Your task to perform on an android device: turn pop-ups off in chrome Image 0: 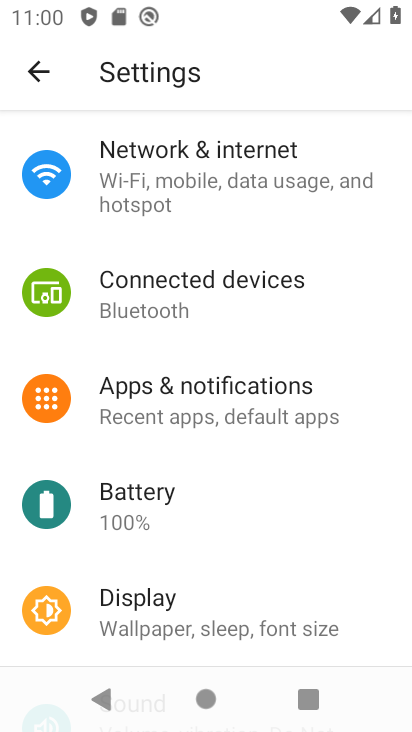
Step 0: press home button
Your task to perform on an android device: turn pop-ups off in chrome Image 1: 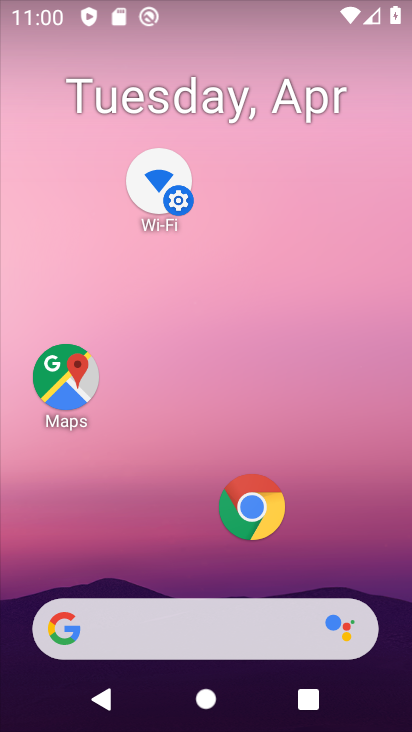
Step 1: click (250, 493)
Your task to perform on an android device: turn pop-ups off in chrome Image 2: 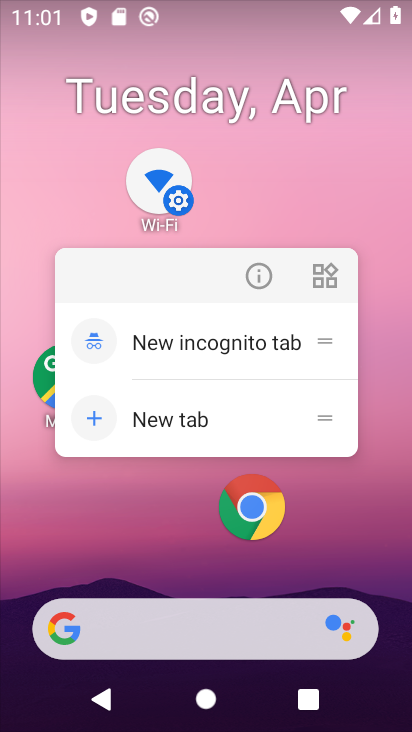
Step 2: click (250, 493)
Your task to perform on an android device: turn pop-ups off in chrome Image 3: 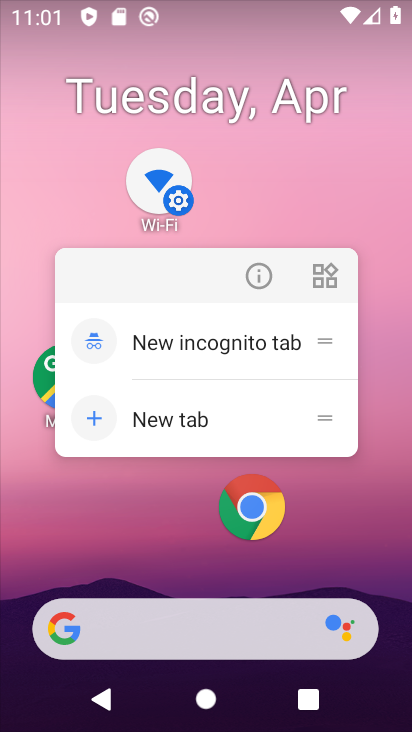
Step 3: click (250, 492)
Your task to perform on an android device: turn pop-ups off in chrome Image 4: 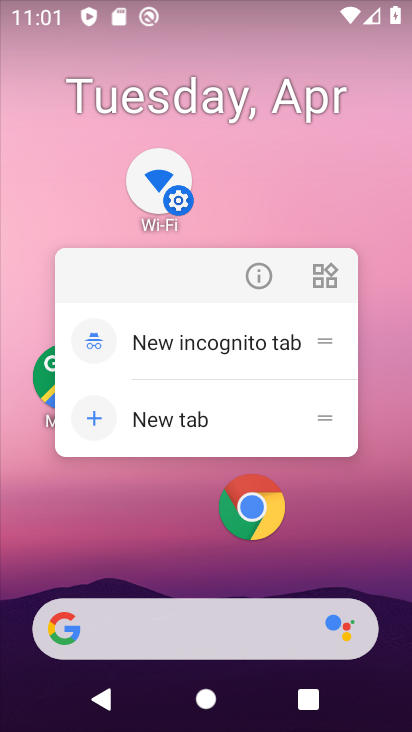
Step 4: click (250, 491)
Your task to perform on an android device: turn pop-ups off in chrome Image 5: 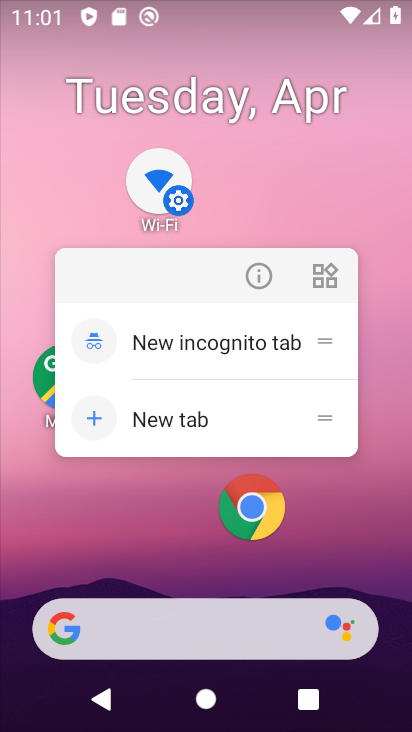
Step 5: click (250, 491)
Your task to perform on an android device: turn pop-ups off in chrome Image 6: 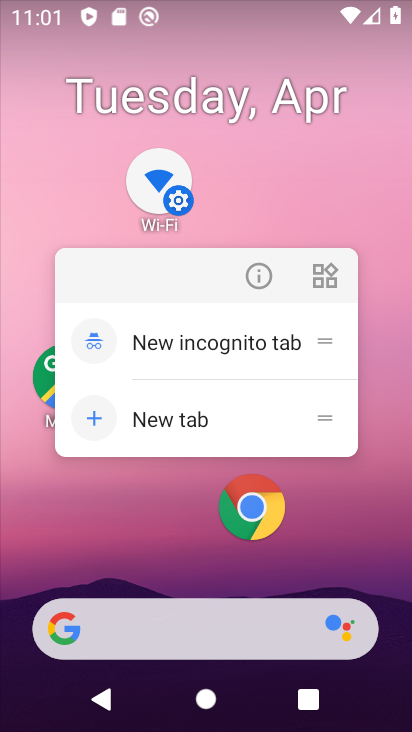
Step 6: click (256, 506)
Your task to perform on an android device: turn pop-ups off in chrome Image 7: 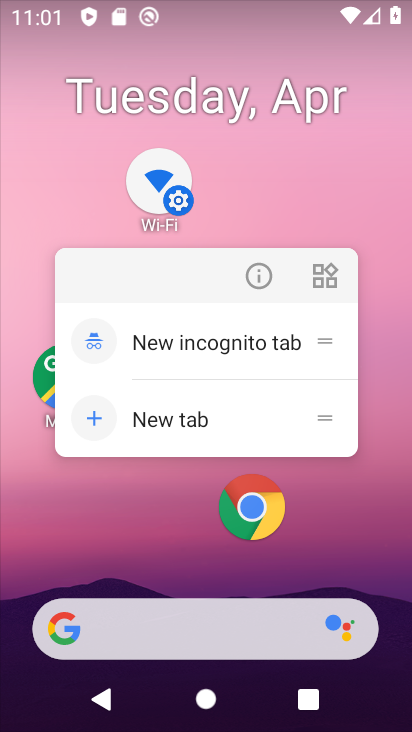
Step 7: click (252, 496)
Your task to perform on an android device: turn pop-ups off in chrome Image 8: 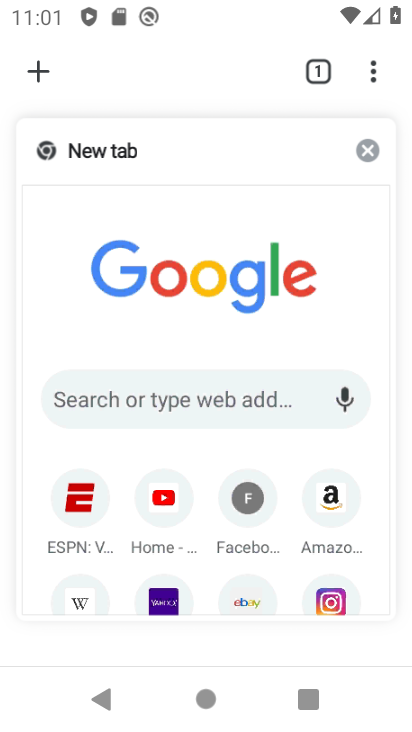
Step 8: click (379, 66)
Your task to perform on an android device: turn pop-ups off in chrome Image 9: 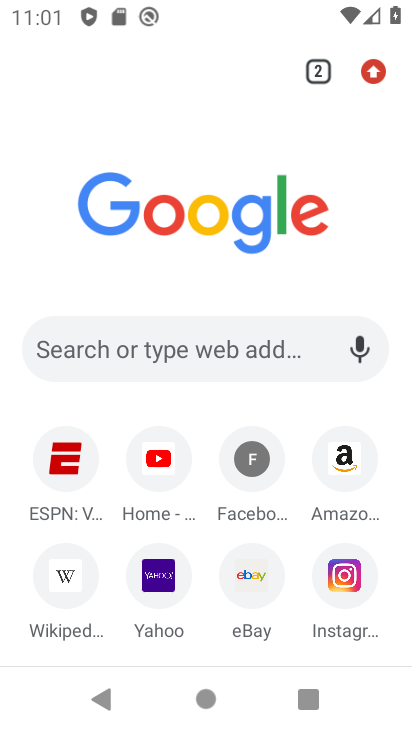
Step 9: click (324, 74)
Your task to perform on an android device: turn pop-ups off in chrome Image 10: 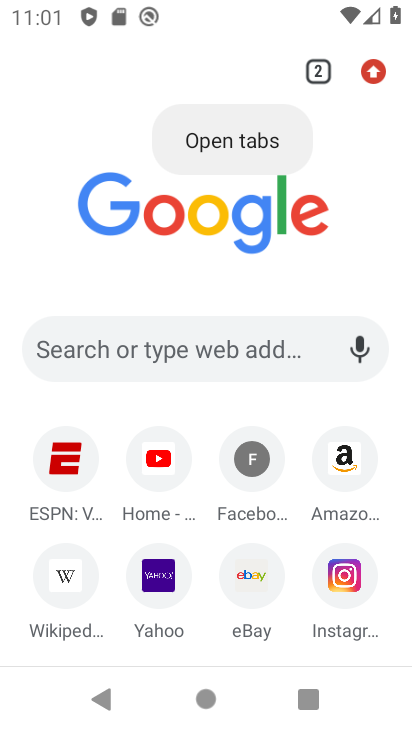
Step 10: click (323, 73)
Your task to perform on an android device: turn pop-ups off in chrome Image 11: 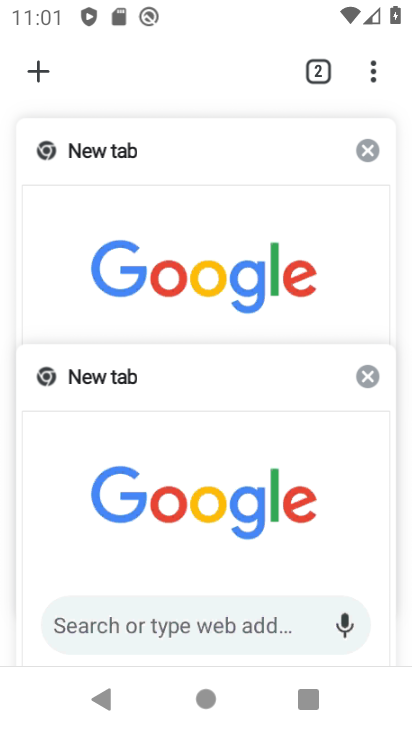
Step 11: click (323, 72)
Your task to perform on an android device: turn pop-ups off in chrome Image 12: 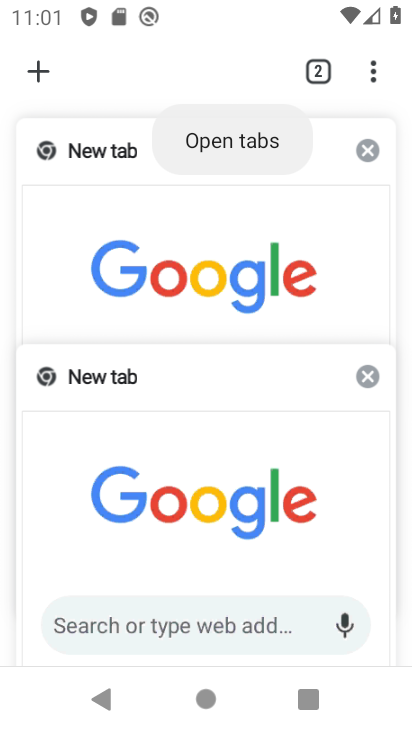
Step 12: click (377, 75)
Your task to perform on an android device: turn pop-ups off in chrome Image 13: 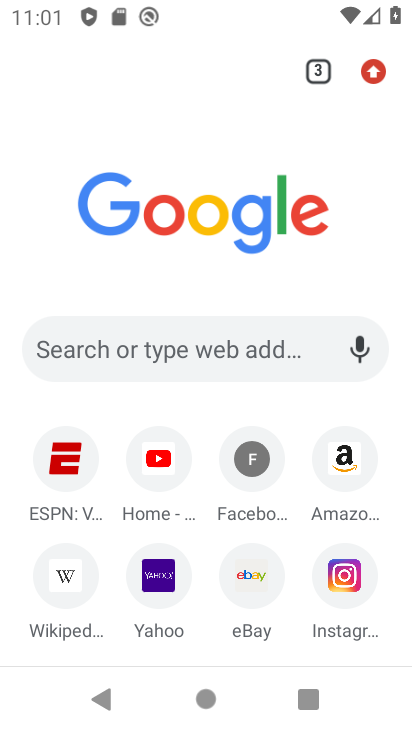
Step 13: click (317, 64)
Your task to perform on an android device: turn pop-ups off in chrome Image 14: 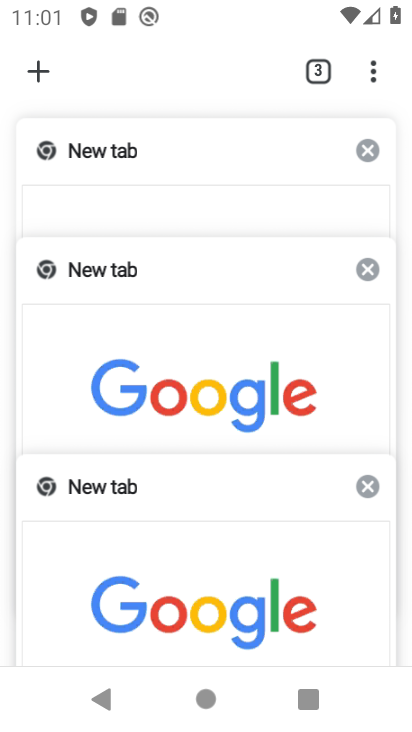
Step 14: click (370, 149)
Your task to perform on an android device: turn pop-ups off in chrome Image 15: 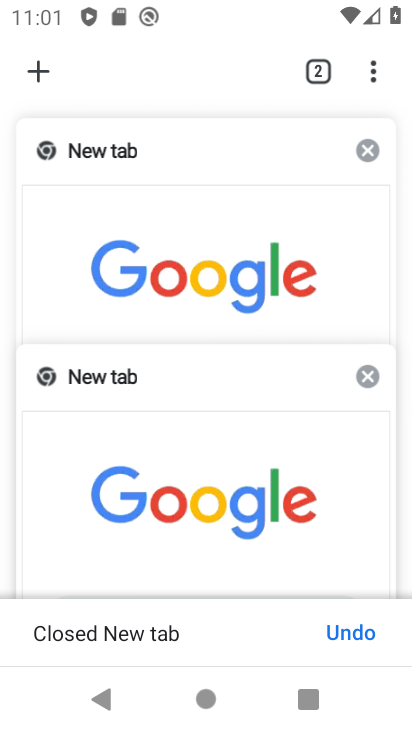
Step 15: click (369, 63)
Your task to perform on an android device: turn pop-ups off in chrome Image 16: 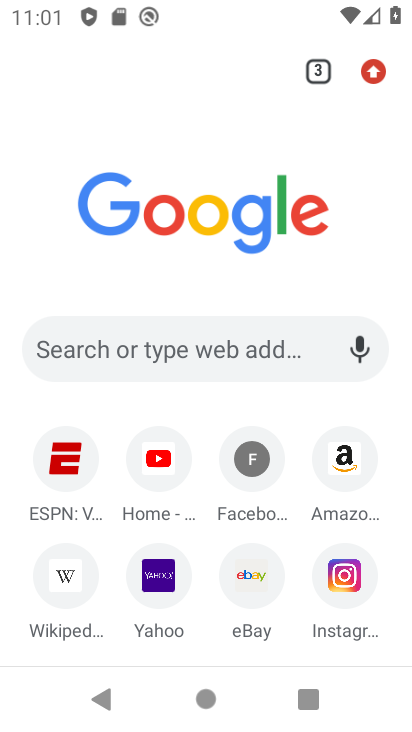
Step 16: click (311, 74)
Your task to perform on an android device: turn pop-ups off in chrome Image 17: 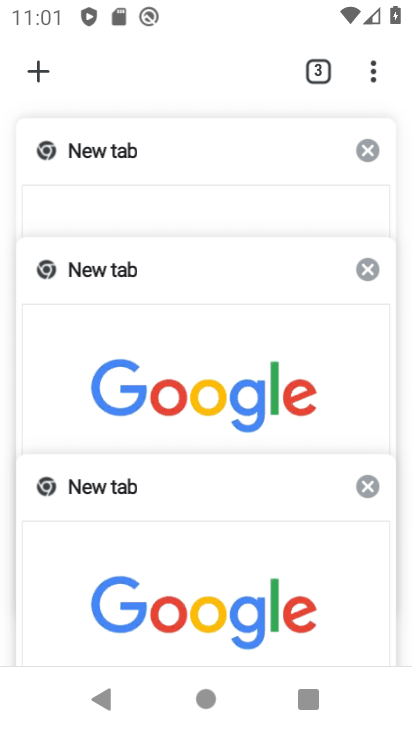
Step 17: click (371, 151)
Your task to perform on an android device: turn pop-ups off in chrome Image 18: 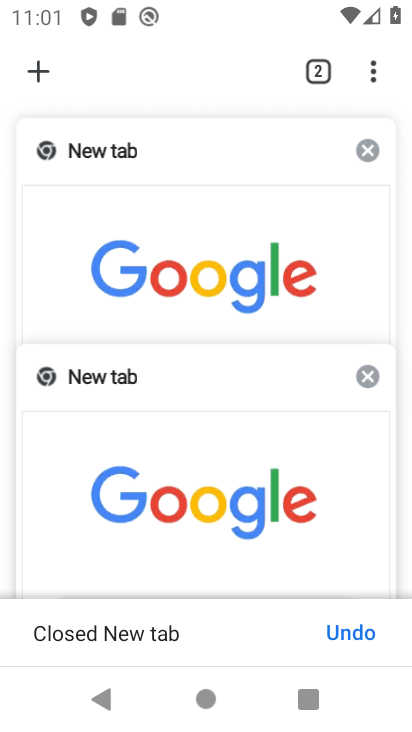
Step 18: click (368, 57)
Your task to perform on an android device: turn pop-ups off in chrome Image 19: 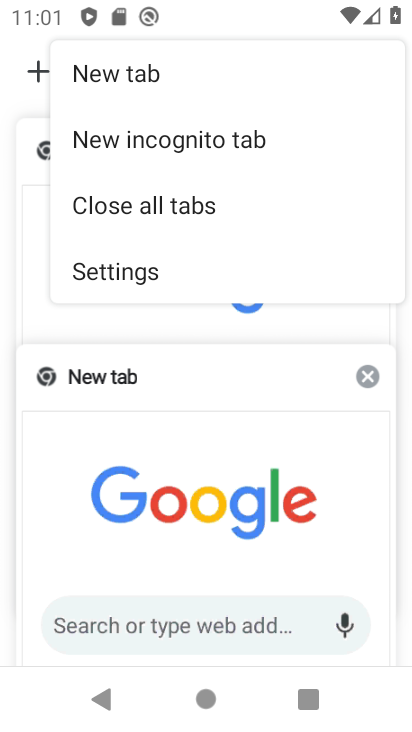
Step 19: click (152, 268)
Your task to perform on an android device: turn pop-ups off in chrome Image 20: 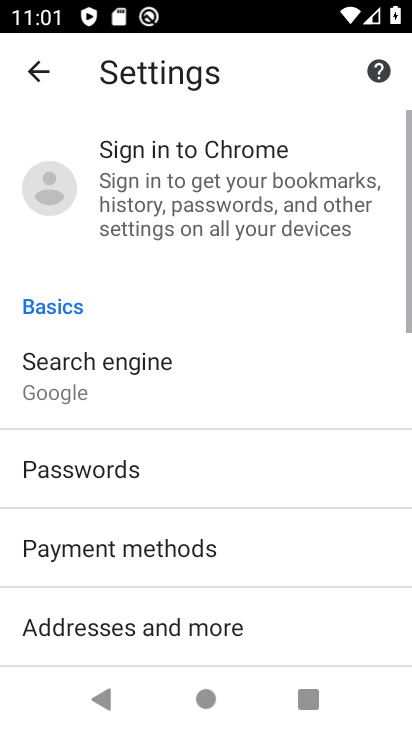
Step 20: drag from (155, 520) to (218, 203)
Your task to perform on an android device: turn pop-ups off in chrome Image 21: 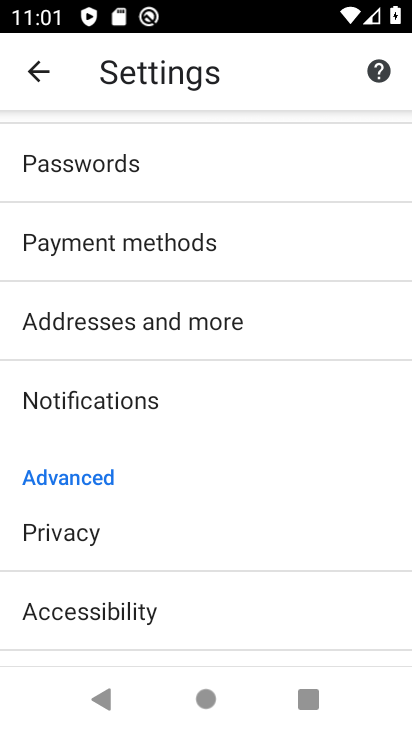
Step 21: drag from (241, 573) to (276, 282)
Your task to perform on an android device: turn pop-ups off in chrome Image 22: 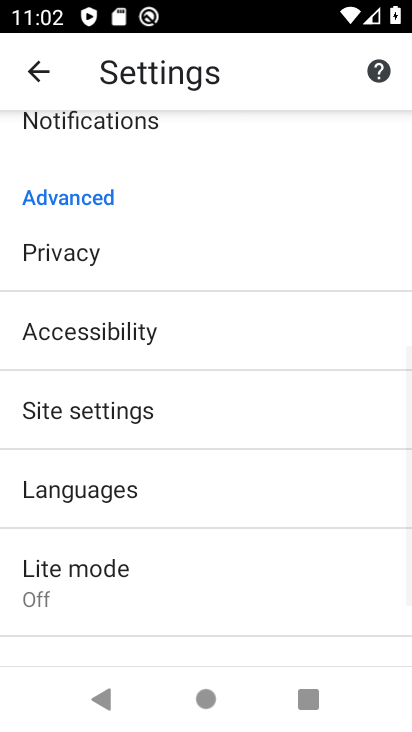
Step 22: click (121, 414)
Your task to perform on an android device: turn pop-ups off in chrome Image 23: 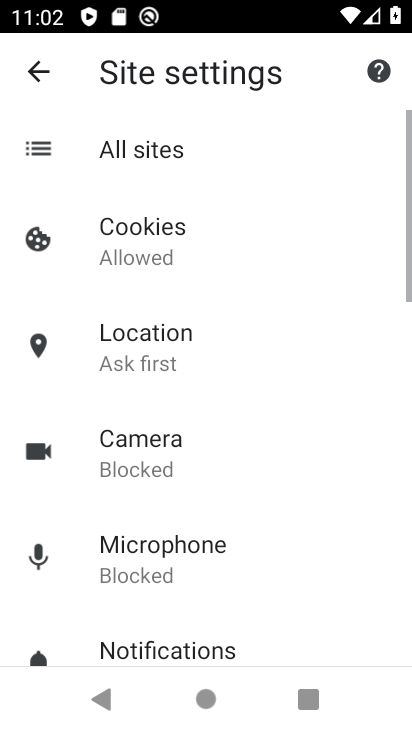
Step 23: drag from (113, 542) to (259, 188)
Your task to perform on an android device: turn pop-ups off in chrome Image 24: 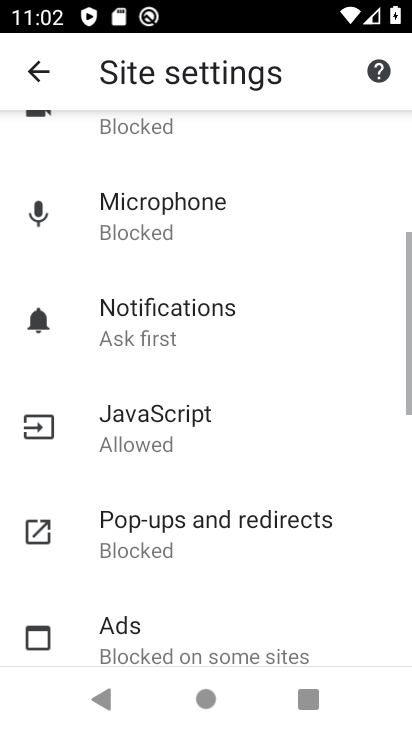
Step 24: drag from (205, 545) to (283, 230)
Your task to perform on an android device: turn pop-ups off in chrome Image 25: 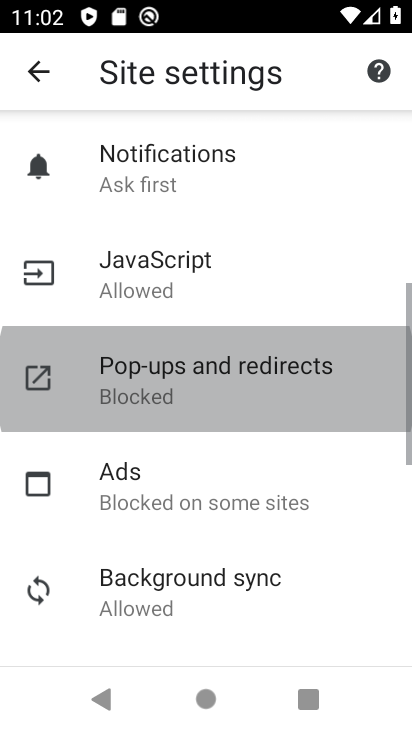
Step 25: click (183, 372)
Your task to perform on an android device: turn pop-ups off in chrome Image 26: 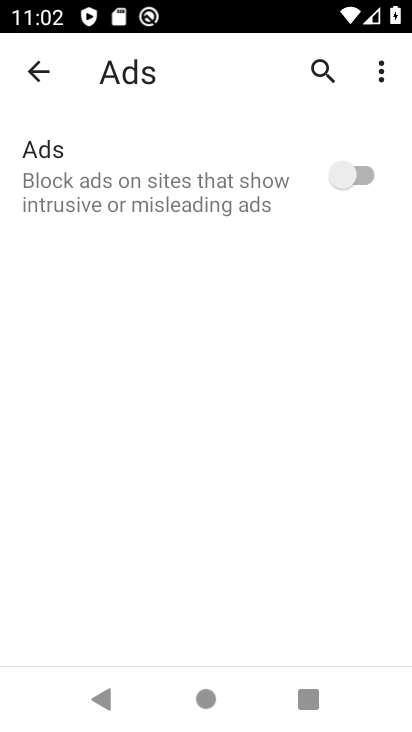
Step 26: click (293, 232)
Your task to perform on an android device: turn pop-ups off in chrome Image 27: 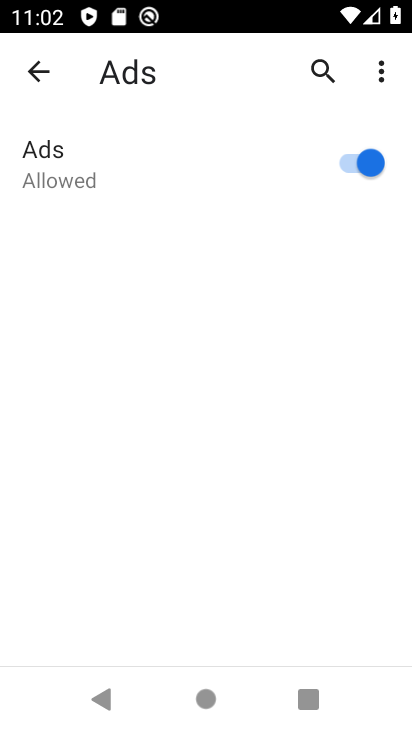
Step 27: click (35, 78)
Your task to perform on an android device: turn pop-ups off in chrome Image 28: 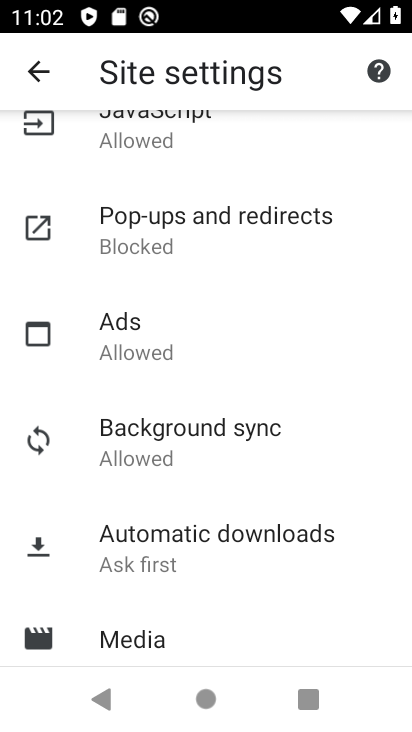
Step 28: click (167, 213)
Your task to perform on an android device: turn pop-ups off in chrome Image 29: 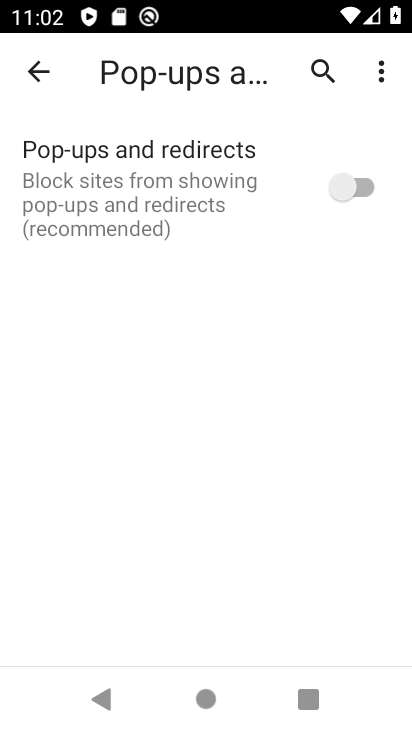
Step 29: click (331, 186)
Your task to perform on an android device: turn pop-ups off in chrome Image 30: 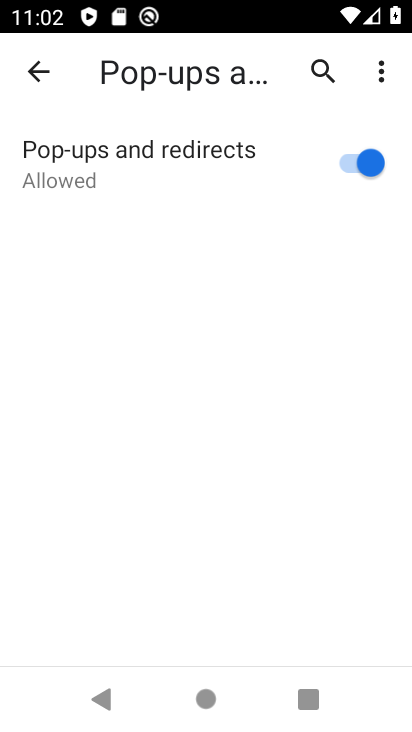
Step 30: task complete